Your task to perform on an android device: search for starred emails in the gmail app Image 0: 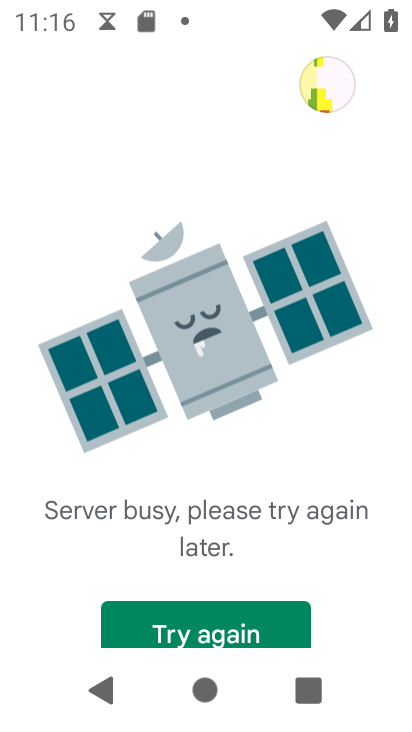
Step 0: press home button
Your task to perform on an android device: search for starred emails in the gmail app Image 1: 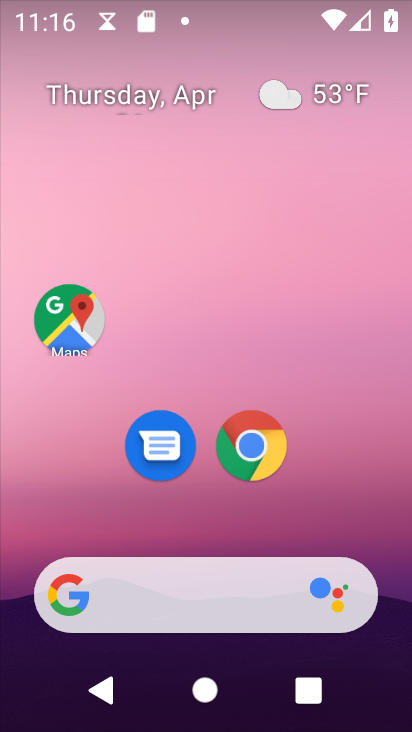
Step 1: drag from (196, 592) to (307, 92)
Your task to perform on an android device: search for starred emails in the gmail app Image 2: 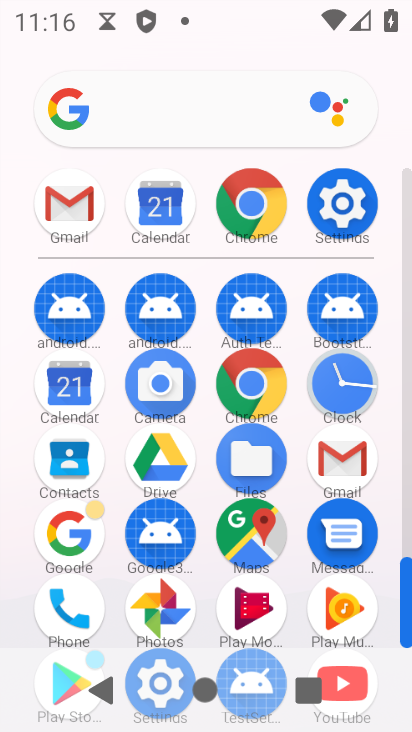
Step 2: click (68, 216)
Your task to perform on an android device: search for starred emails in the gmail app Image 3: 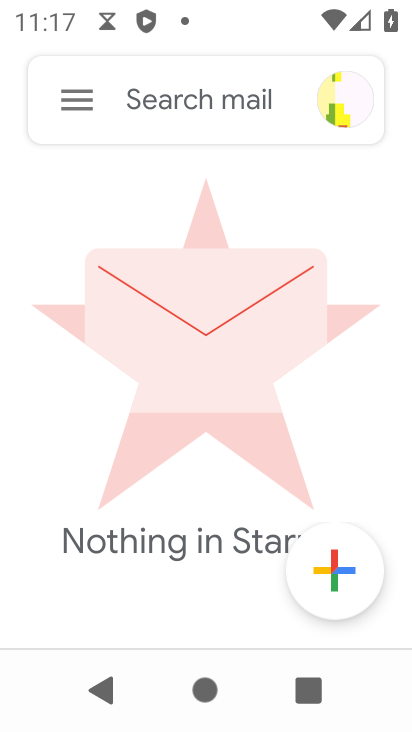
Step 3: task complete